Your task to perform on an android device: turn pop-ups on in chrome Image 0: 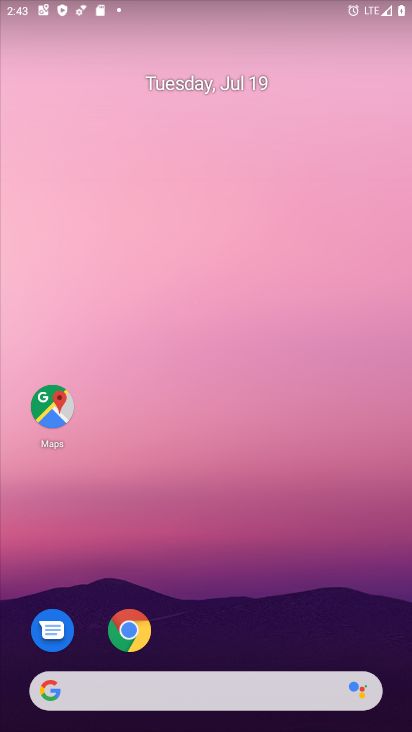
Step 0: click (128, 621)
Your task to perform on an android device: turn pop-ups on in chrome Image 1: 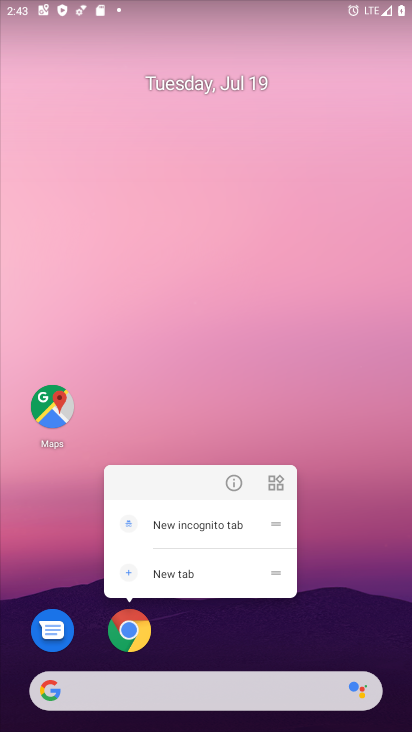
Step 1: click (128, 621)
Your task to perform on an android device: turn pop-ups on in chrome Image 2: 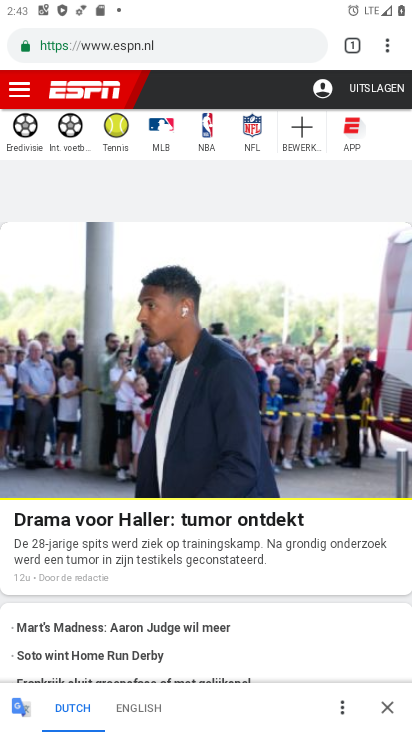
Step 2: click (386, 46)
Your task to perform on an android device: turn pop-ups on in chrome Image 3: 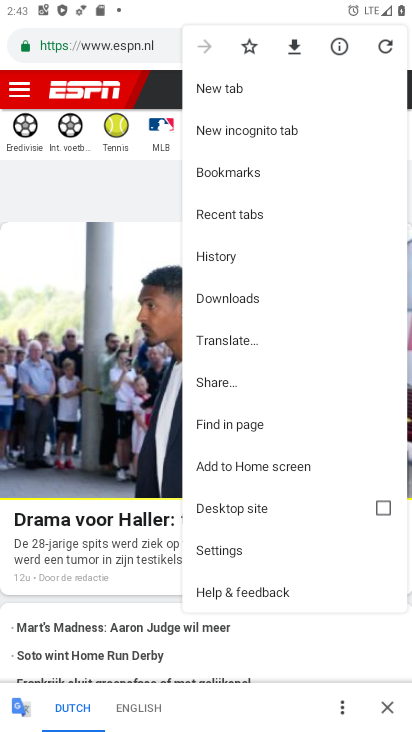
Step 3: click (251, 550)
Your task to perform on an android device: turn pop-ups on in chrome Image 4: 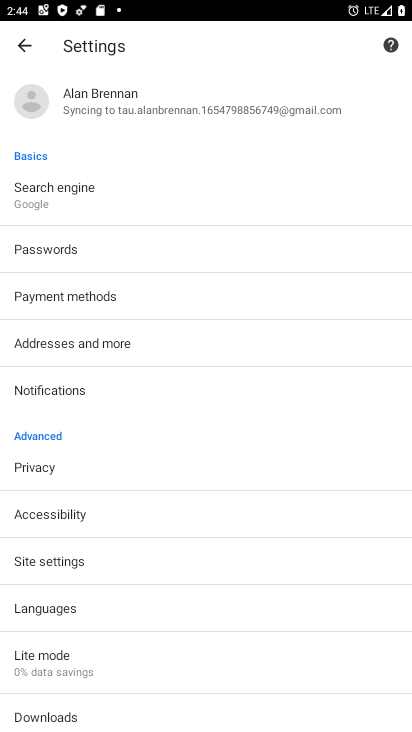
Step 4: click (93, 557)
Your task to perform on an android device: turn pop-ups on in chrome Image 5: 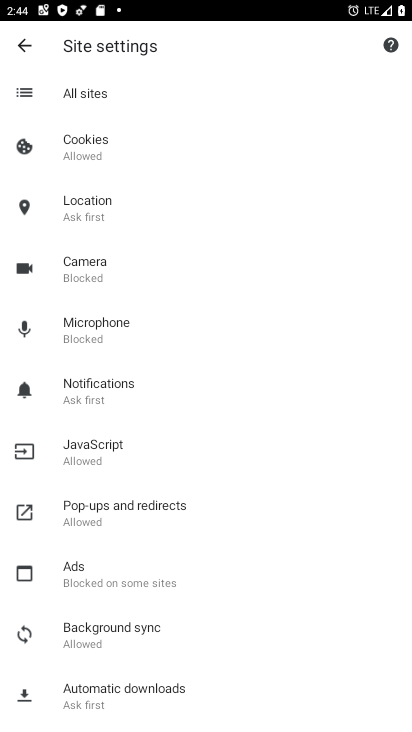
Step 5: click (124, 513)
Your task to perform on an android device: turn pop-ups on in chrome Image 6: 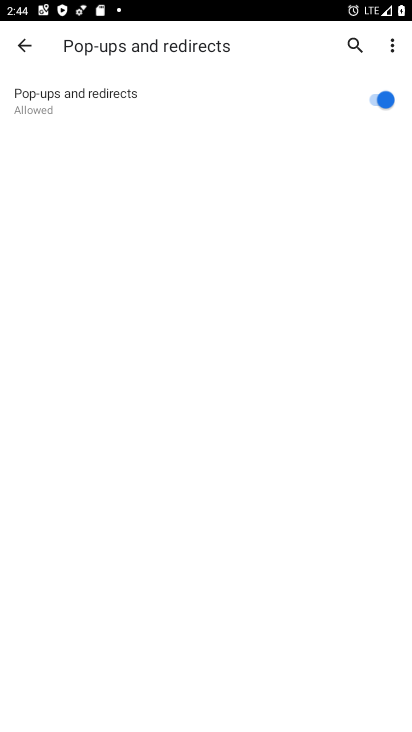
Step 6: task complete